Your task to perform on an android device: turn off priority inbox in the gmail app Image 0: 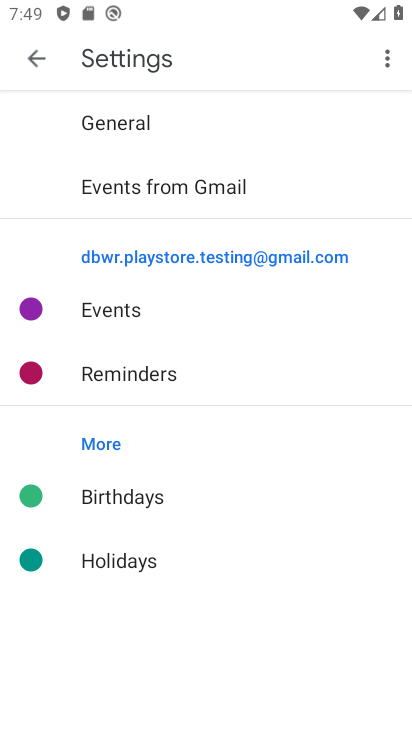
Step 0: press home button
Your task to perform on an android device: turn off priority inbox in the gmail app Image 1: 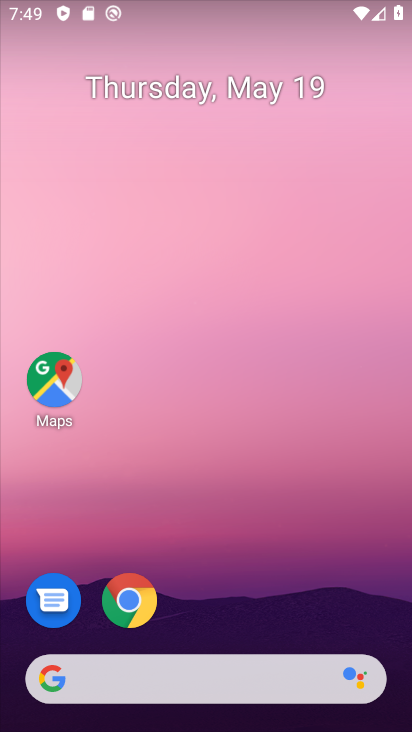
Step 1: drag from (216, 635) to (225, 6)
Your task to perform on an android device: turn off priority inbox in the gmail app Image 2: 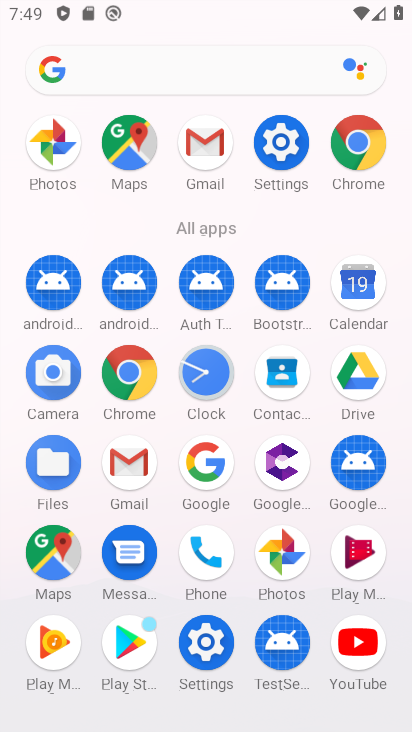
Step 2: click (200, 150)
Your task to perform on an android device: turn off priority inbox in the gmail app Image 3: 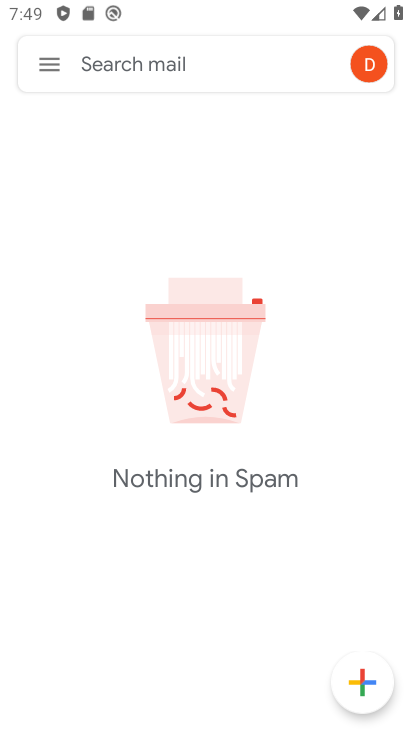
Step 3: click (49, 68)
Your task to perform on an android device: turn off priority inbox in the gmail app Image 4: 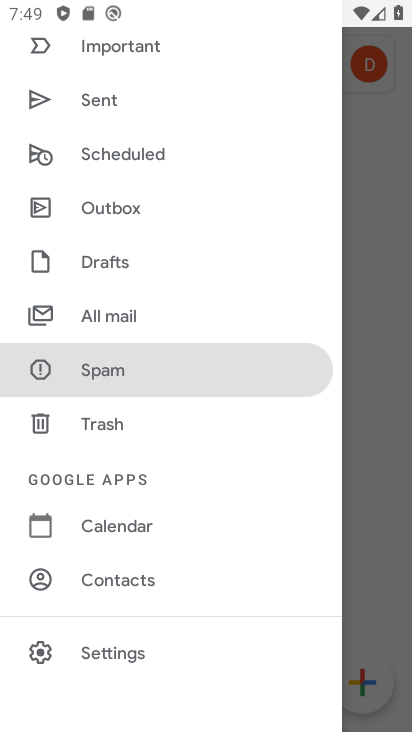
Step 4: click (114, 655)
Your task to perform on an android device: turn off priority inbox in the gmail app Image 5: 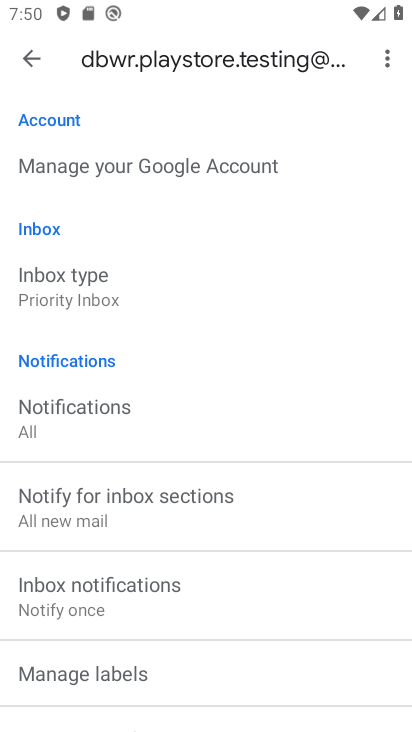
Step 5: click (57, 294)
Your task to perform on an android device: turn off priority inbox in the gmail app Image 6: 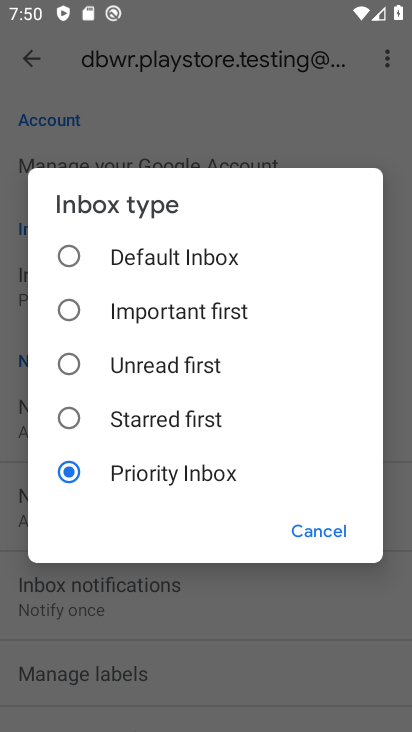
Step 6: click (68, 259)
Your task to perform on an android device: turn off priority inbox in the gmail app Image 7: 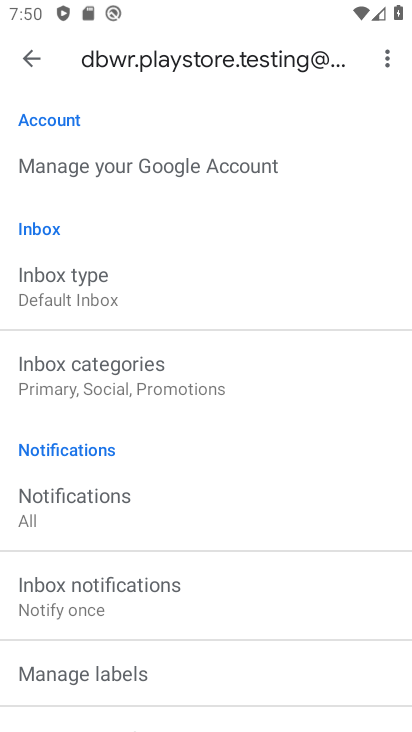
Step 7: task complete